Your task to perform on an android device: turn on sleep mode Image 0: 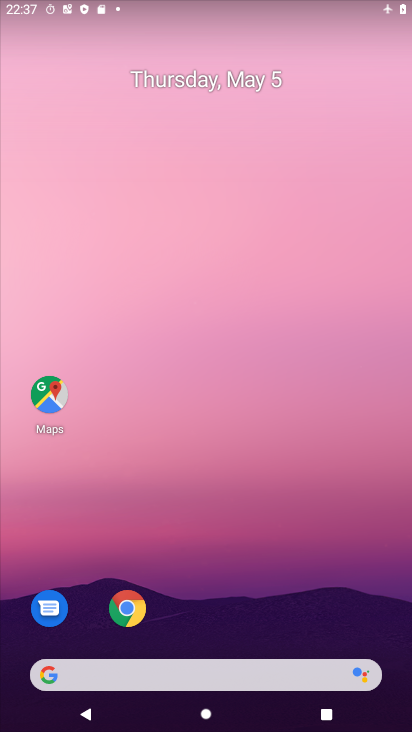
Step 0: drag from (299, 649) to (346, 77)
Your task to perform on an android device: turn on sleep mode Image 1: 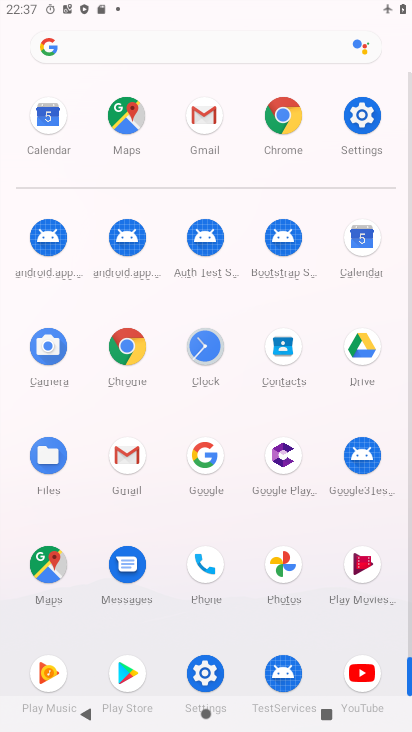
Step 1: click (366, 117)
Your task to perform on an android device: turn on sleep mode Image 2: 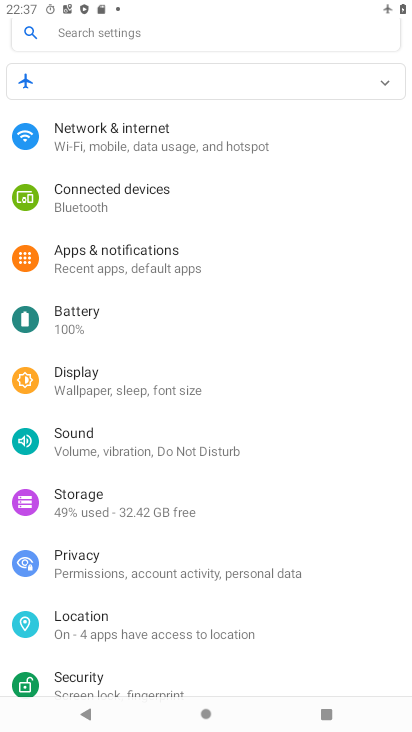
Step 2: click (127, 383)
Your task to perform on an android device: turn on sleep mode Image 3: 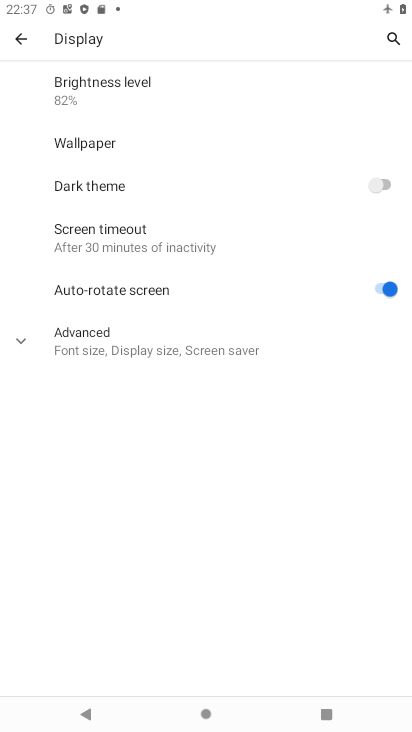
Step 3: task complete